Your task to perform on an android device: Show me productivity apps on the Play Store Image 0: 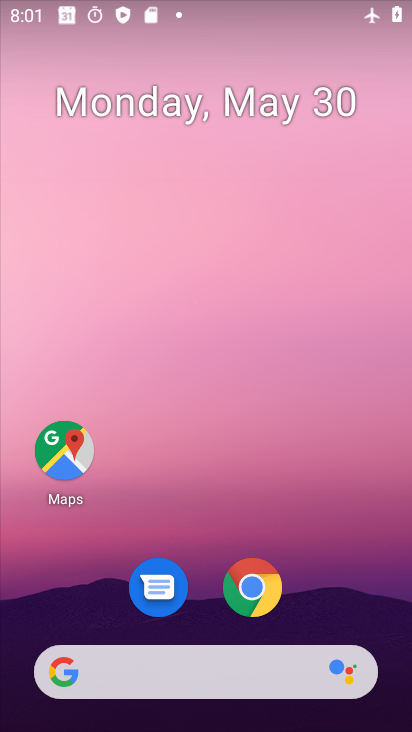
Step 0: drag from (314, 570) to (218, 43)
Your task to perform on an android device: Show me productivity apps on the Play Store Image 1: 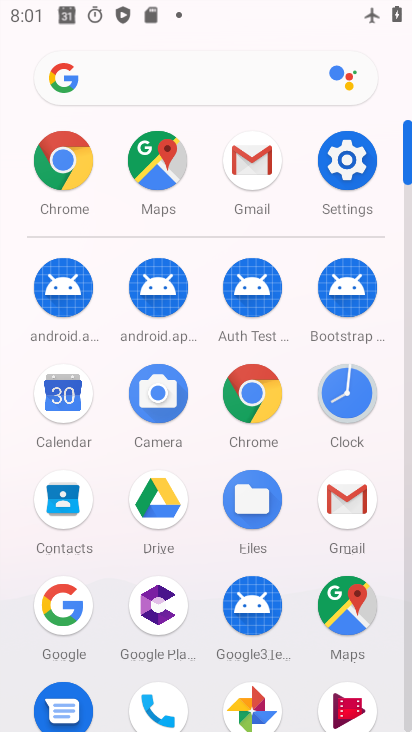
Step 1: drag from (13, 514) to (13, 168)
Your task to perform on an android device: Show me productivity apps on the Play Store Image 2: 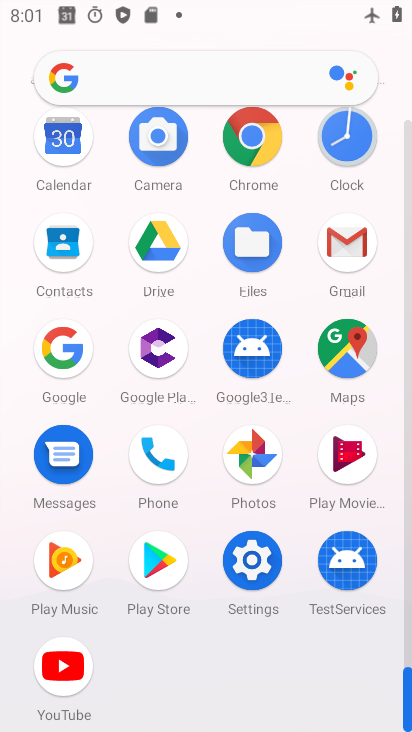
Step 2: click (154, 558)
Your task to perform on an android device: Show me productivity apps on the Play Store Image 3: 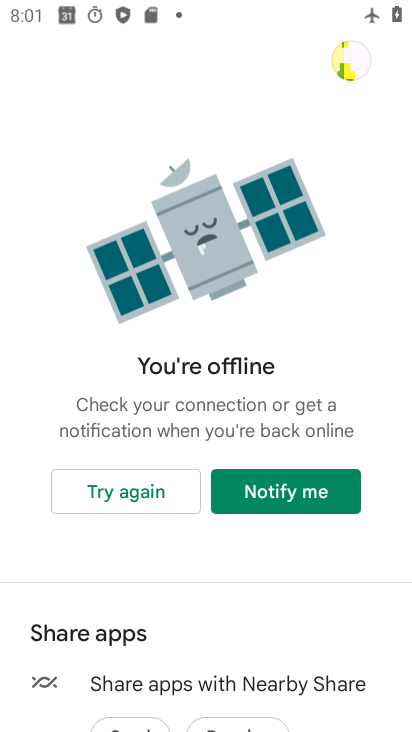
Step 3: click (130, 504)
Your task to perform on an android device: Show me productivity apps on the Play Store Image 4: 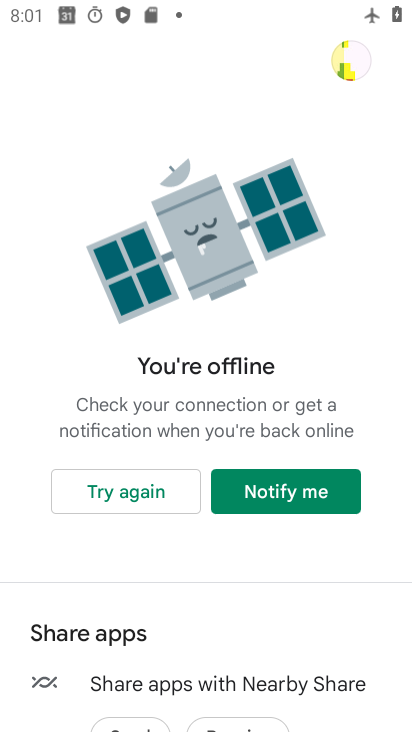
Step 4: click (135, 484)
Your task to perform on an android device: Show me productivity apps on the Play Store Image 5: 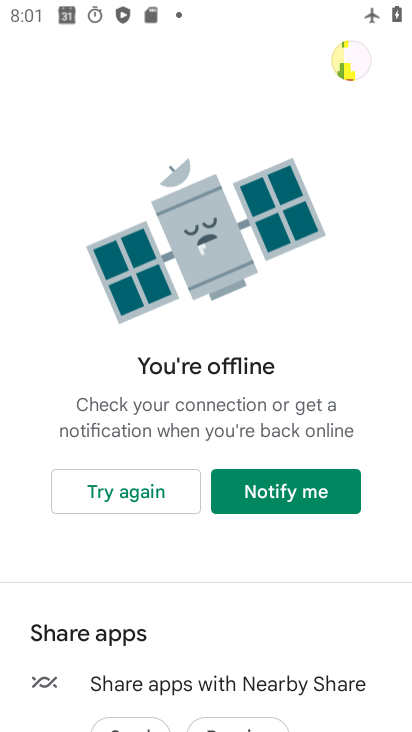
Step 5: click (137, 474)
Your task to perform on an android device: Show me productivity apps on the Play Store Image 6: 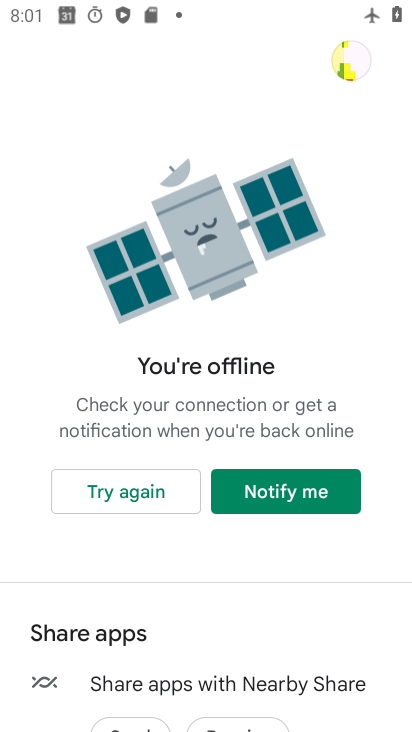
Step 6: click (127, 509)
Your task to perform on an android device: Show me productivity apps on the Play Store Image 7: 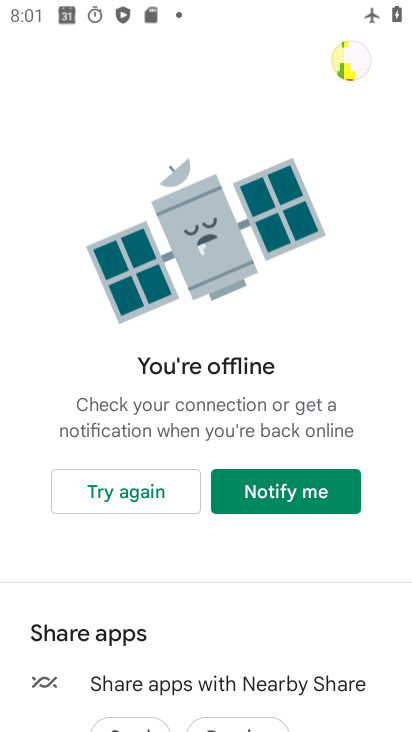
Step 7: task complete